Your task to perform on an android device: empty trash in the gmail app Image 0: 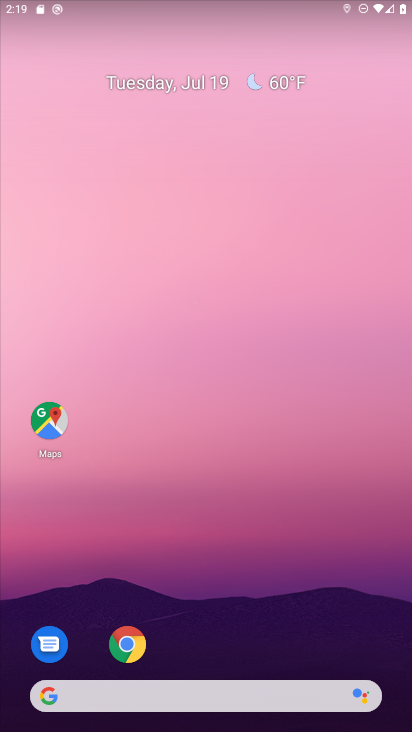
Step 0: drag from (249, 666) to (221, 94)
Your task to perform on an android device: empty trash in the gmail app Image 1: 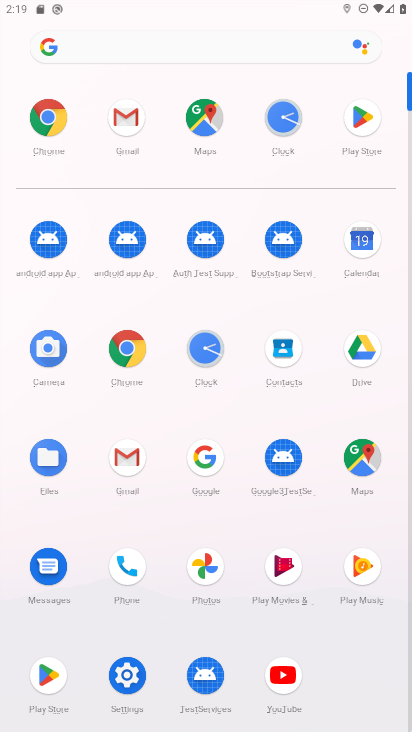
Step 1: click (131, 456)
Your task to perform on an android device: empty trash in the gmail app Image 2: 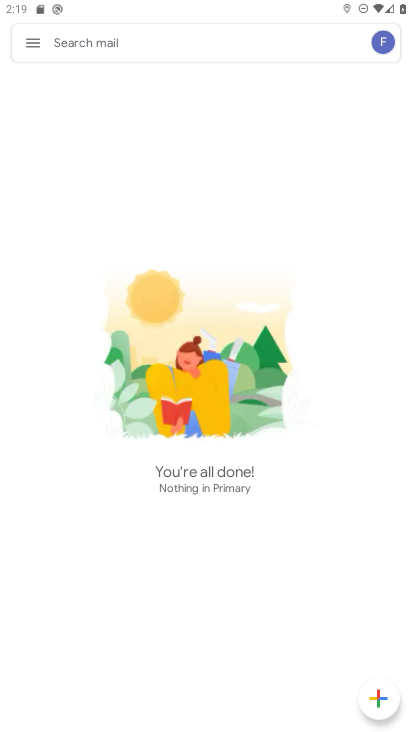
Step 2: click (29, 47)
Your task to perform on an android device: empty trash in the gmail app Image 3: 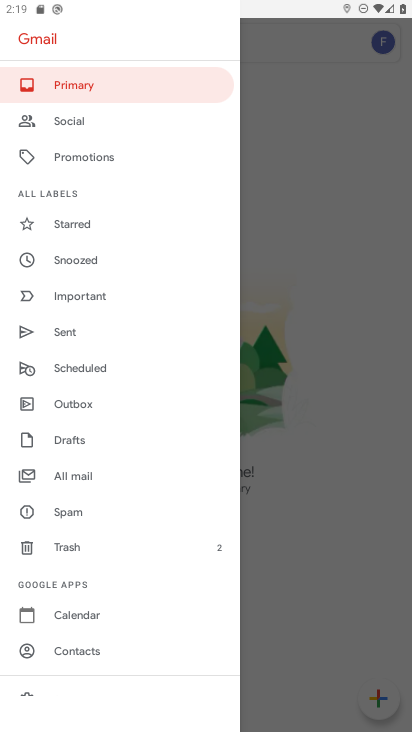
Step 3: click (61, 548)
Your task to perform on an android device: empty trash in the gmail app Image 4: 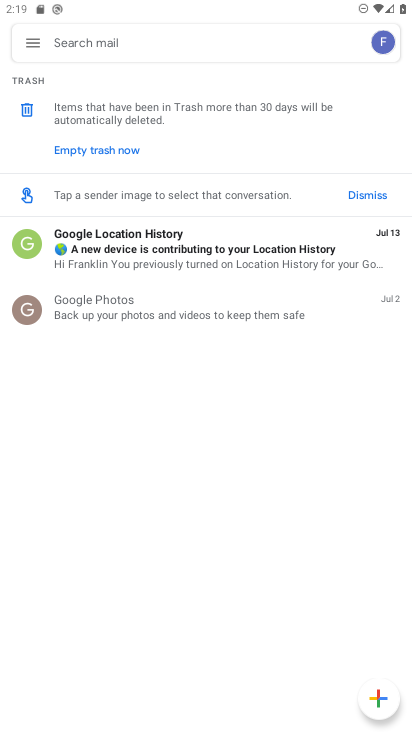
Step 4: click (97, 150)
Your task to perform on an android device: empty trash in the gmail app Image 5: 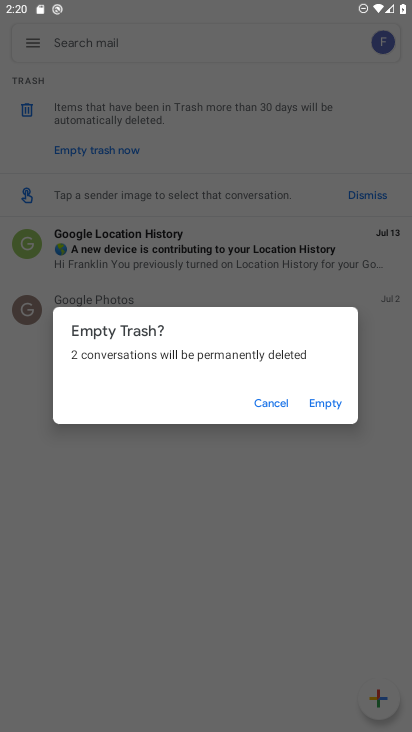
Step 5: click (323, 399)
Your task to perform on an android device: empty trash in the gmail app Image 6: 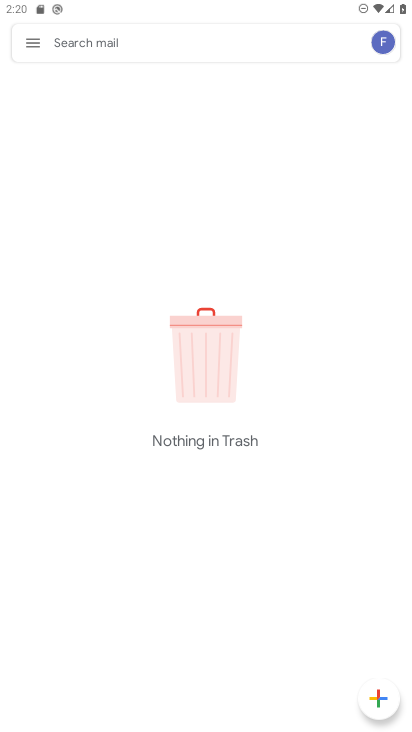
Step 6: task complete